Your task to perform on an android device: set an alarm Image 0: 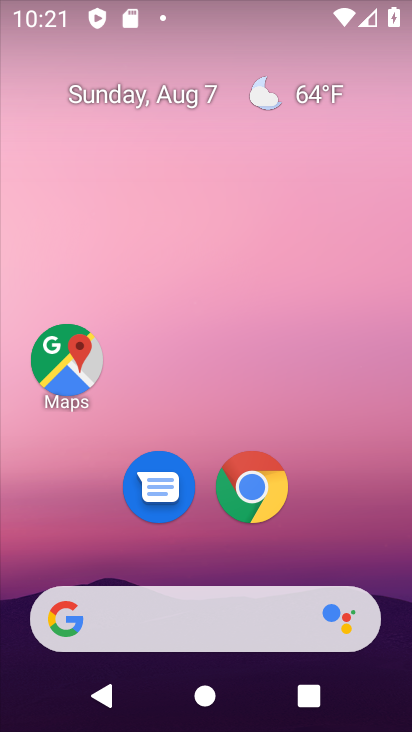
Step 0: drag from (380, 616) to (299, 43)
Your task to perform on an android device: set an alarm Image 1: 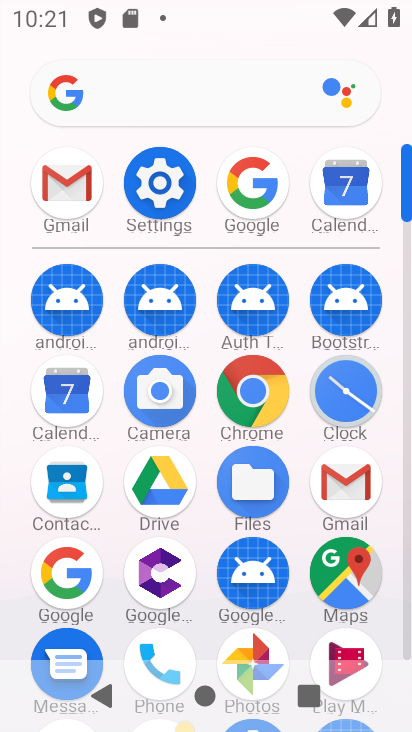
Step 1: click (345, 373)
Your task to perform on an android device: set an alarm Image 2: 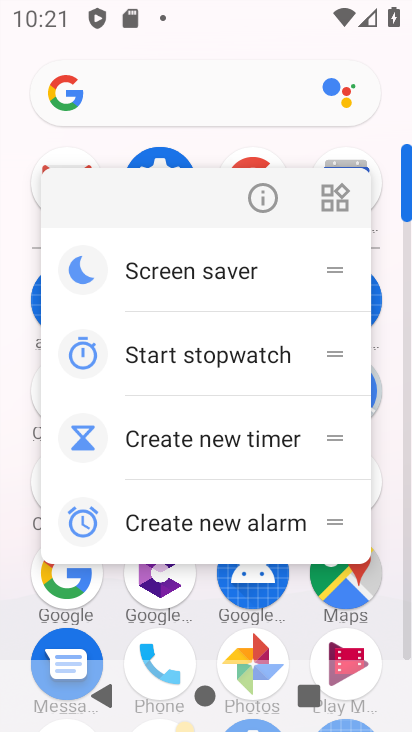
Step 2: click (225, 519)
Your task to perform on an android device: set an alarm Image 3: 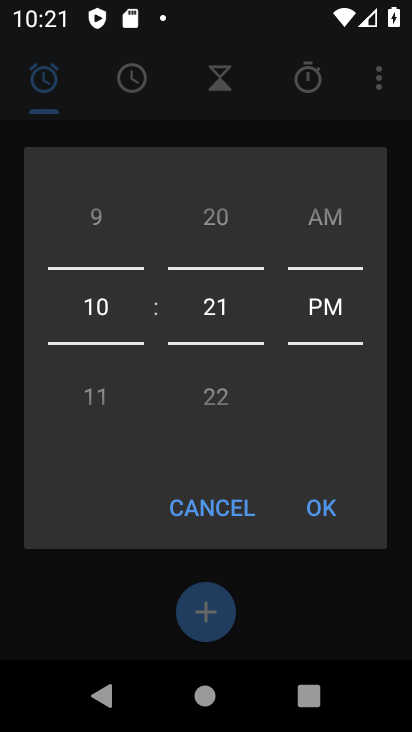
Step 3: click (320, 509)
Your task to perform on an android device: set an alarm Image 4: 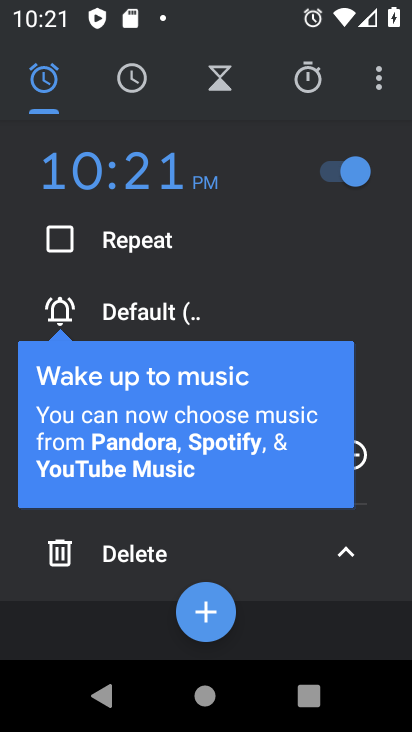
Step 4: task complete